Your task to perform on an android device: all mails in gmail Image 0: 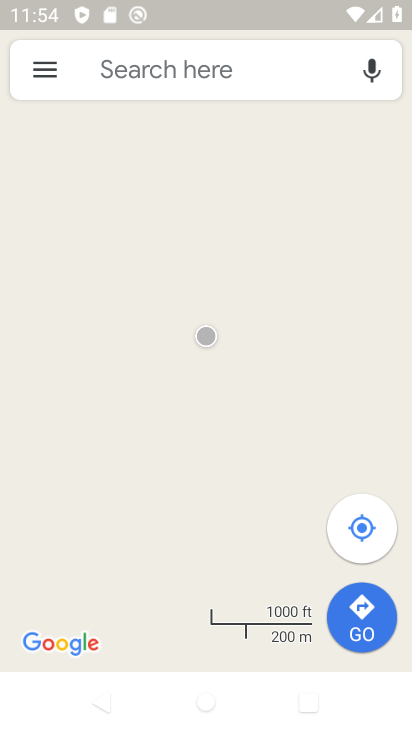
Step 0: press home button
Your task to perform on an android device: all mails in gmail Image 1: 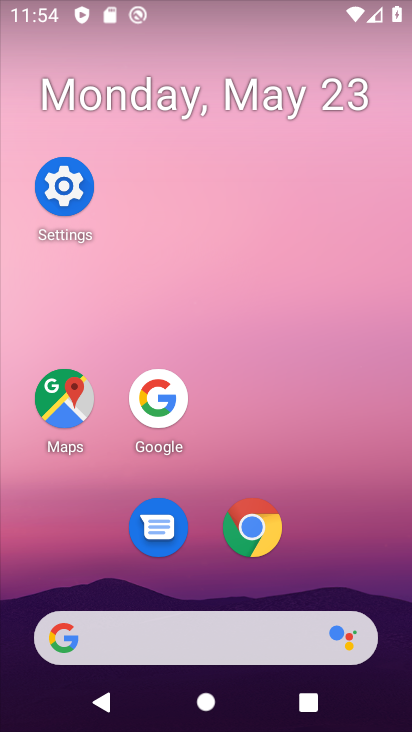
Step 1: drag from (336, 533) to (328, 98)
Your task to perform on an android device: all mails in gmail Image 2: 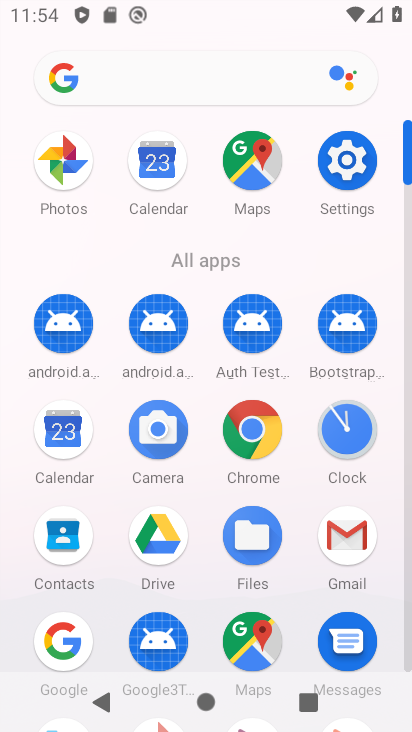
Step 2: click (352, 530)
Your task to perform on an android device: all mails in gmail Image 3: 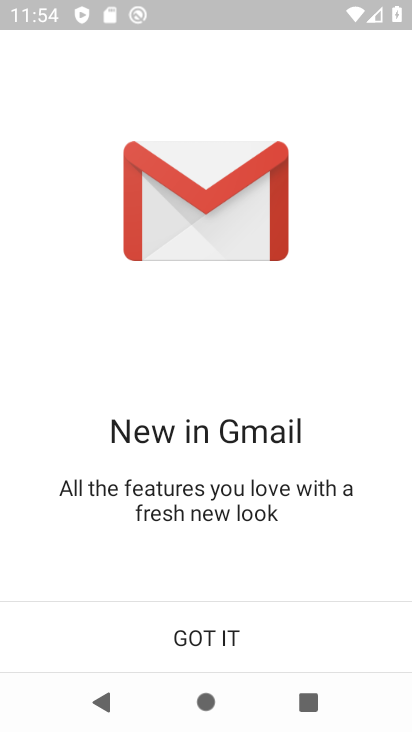
Step 3: click (260, 631)
Your task to perform on an android device: all mails in gmail Image 4: 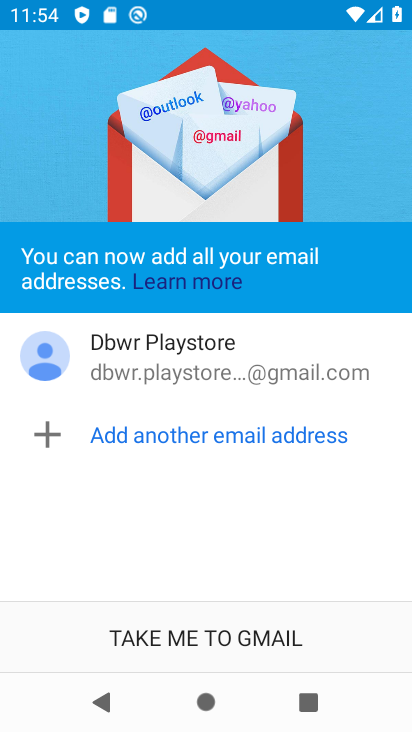
Step 4: click (155, 653)
Your task to perform on an android device: all mails in gmail Image 5: 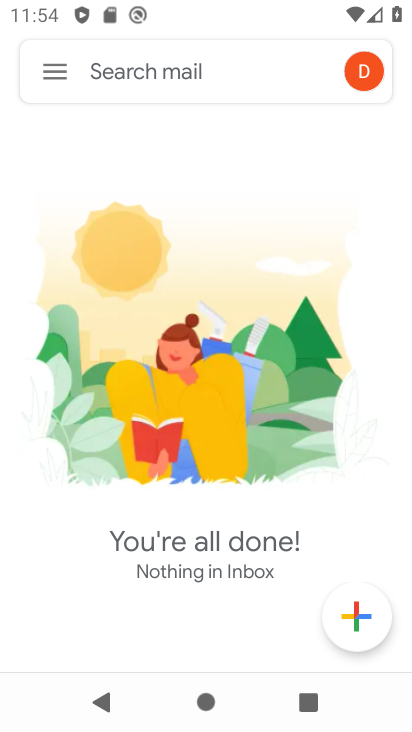
Step 5: click (53, 84)
Your task to perform on an android device: all mails in gmail Image 6: 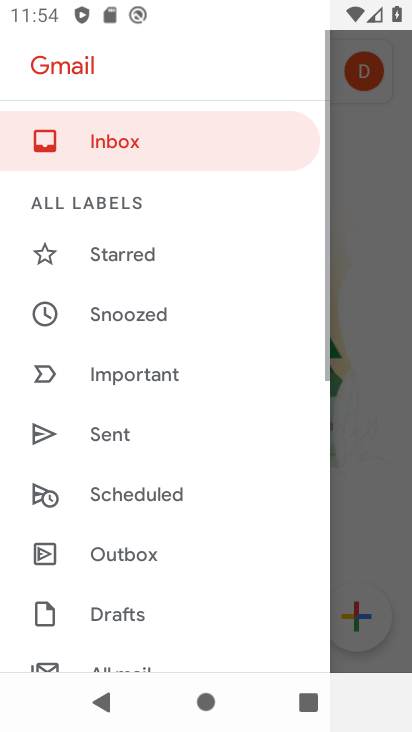
Step 6: drag from (133, 550) to (141, 107)
Your task to perform on an android device: all mails in gmail Image 7: 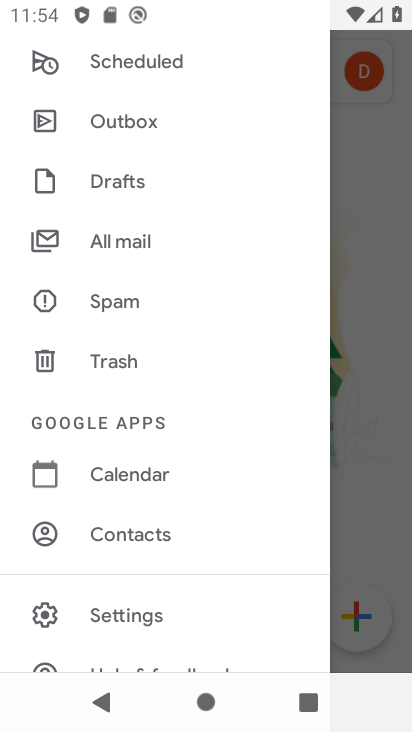
Step 7: drag from (139, 580) to (143, 142)
Your task to perform on an android device: all mails in gmail Image 8: 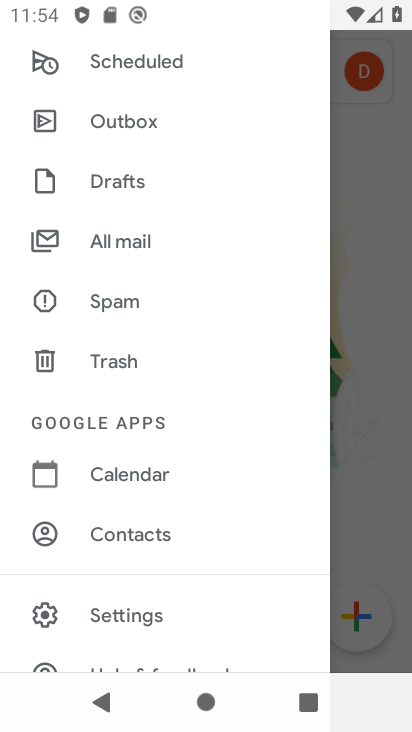
Step 8: click (174, 263)
Your task to perform on an android device: all mails in gmail Image 9: 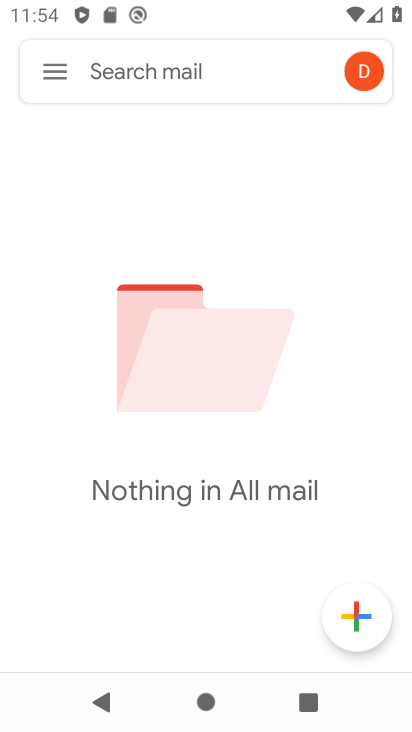
Step 9: task complete